Your task to perform on an android device: turn pop-ups on in chrome Image 0: 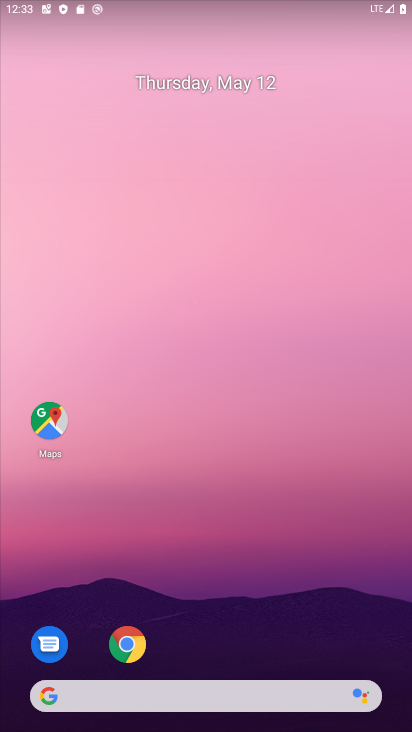
Step 0: click (128, 642)
Your task to perform on an android device: turn pop-ups on in chrome Image 1: 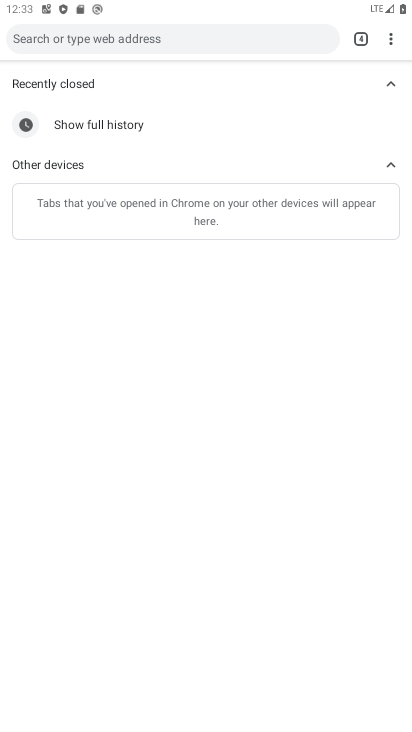
Step 1: click (384, 43)
Your task to perform on an android device: turn pop-ups on in chrome Image 2: 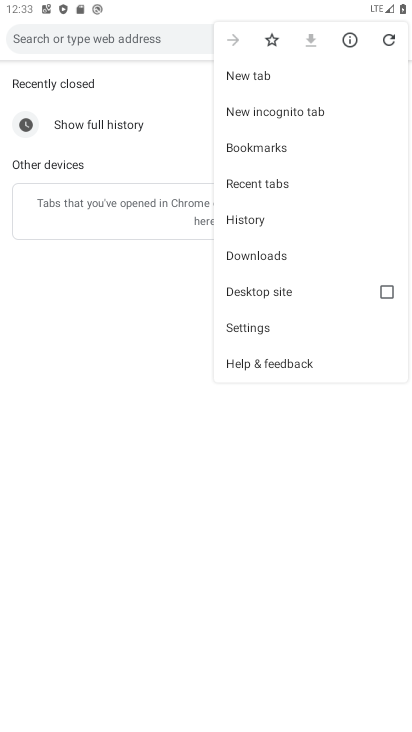
Step 2: click (241, 318)
Your task to perform on an android device: turn pop-ups on in chrome Image 3: 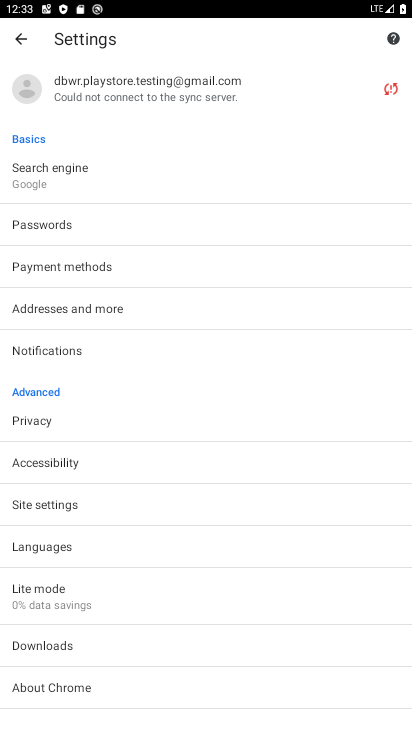
Step 3: click (95, 500)
Your task to perform on an android device: turn pop-ups on in chrome Image 4: 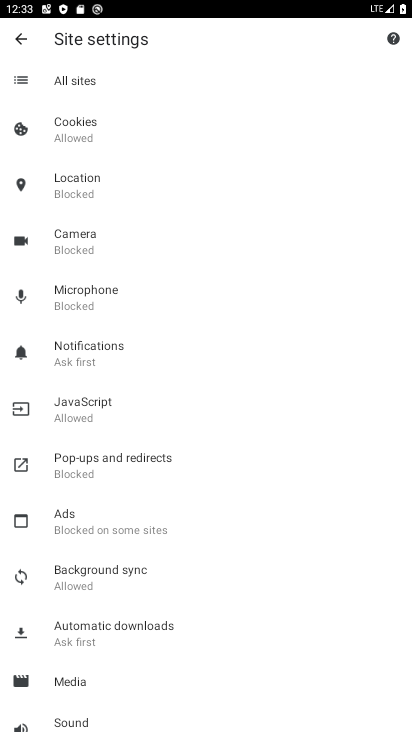
Step 4: click (126, 468)
Your task to perform on an android device: turn pop-ups on in chrome Image 5: 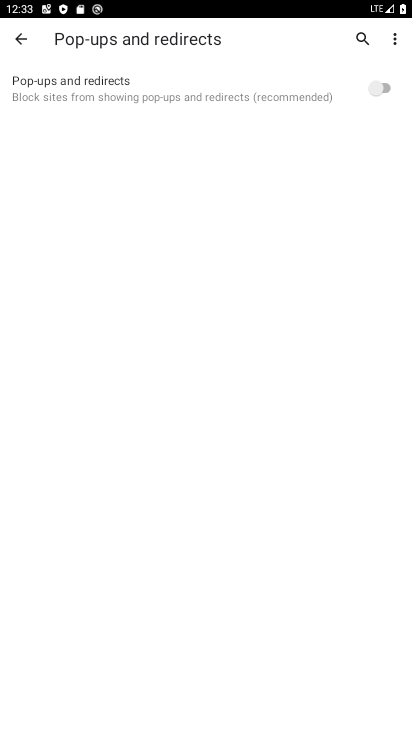
Step 5: click (381, 92)
Your task to perform on an android device: turn pop-ups on in chrome Image 6: 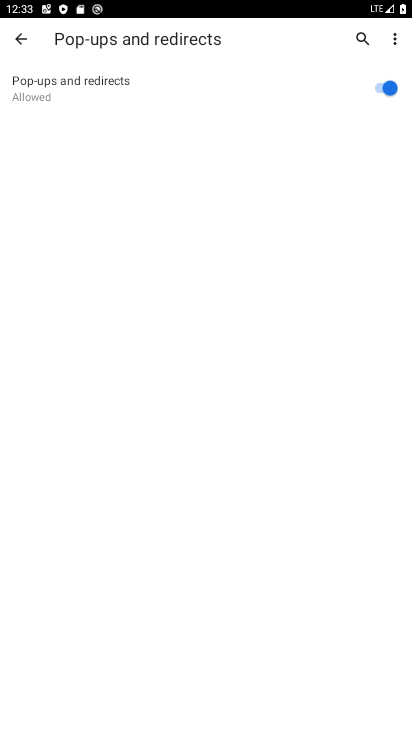
Step 6: task complete